Your task to perform on an android device: open app "Facebook" (install if not already installed) Image 0: 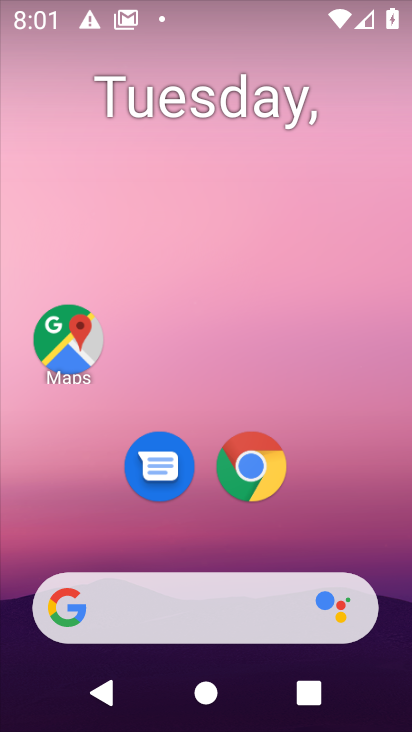
Step 0: drag from (180, 505) to (297, 17)
Your task to perform on an android device: open app "Facebook" (install if not already installed) Image 1: 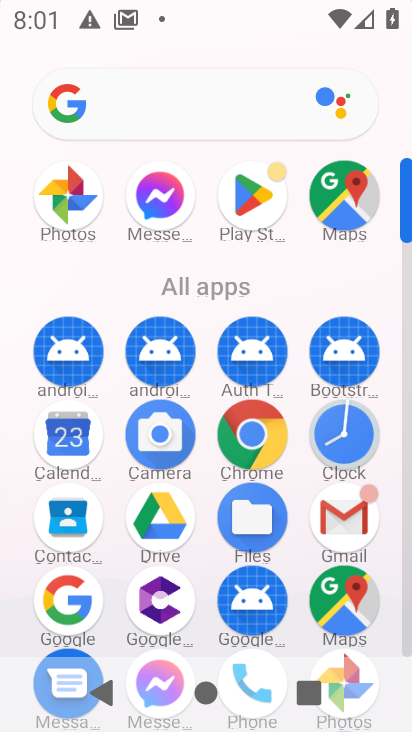
Step 1: click (262, 197)
Your task to perform on an android device: open app "Facebook" (install if not already installed) Image 2: 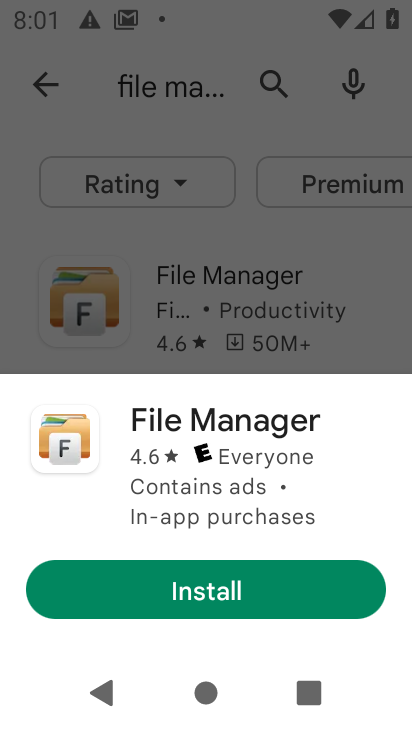
Step 2: click (250, 326)
Your task to perform on an android device: open app "Facebook" (install if not already installed) Image 3: 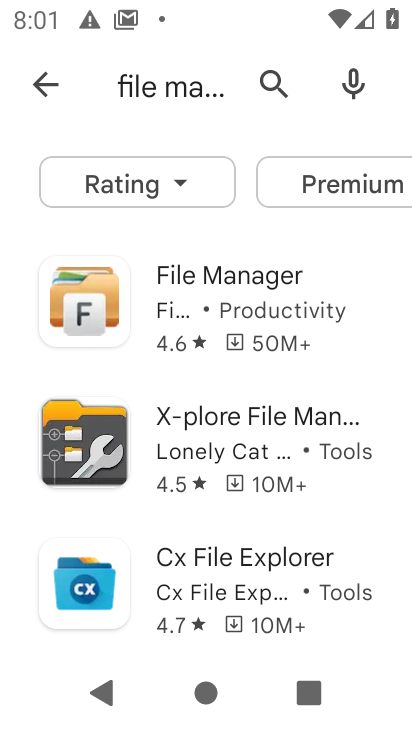
Step 3: click (277, 76)
Your task to perform on an android device: open app "Facebook" (install if not already installed) Image 4: 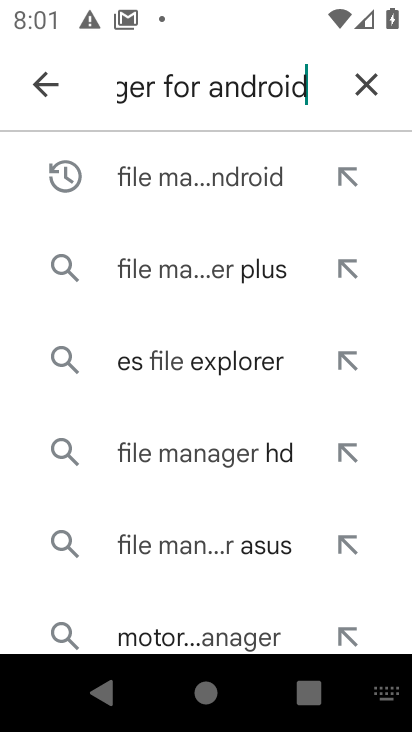
Step 4: click (362, 83)
Your task to perform on an android device: open app "Facebook" (install if not already installed) Image 5: 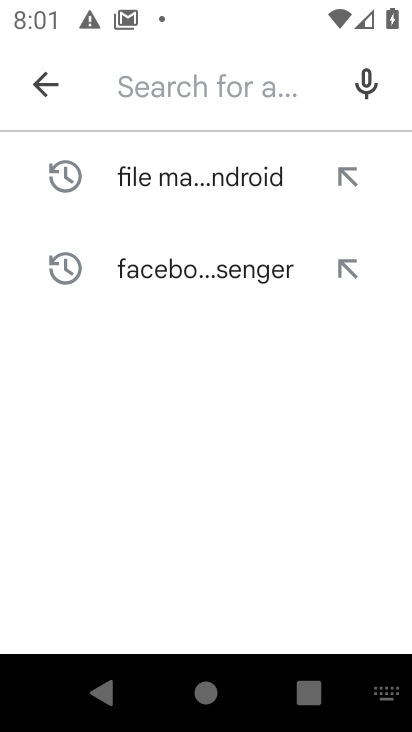
Step 5: click (161, 105)
Your task to perform on an android device: open app "Facebook" (install if not already installed) Image 6: 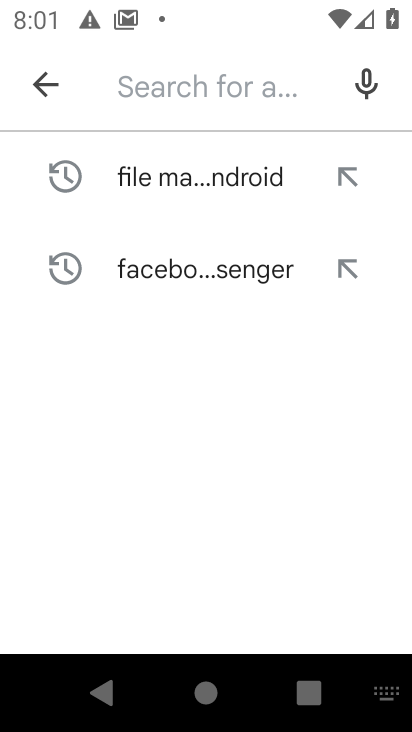
Step 6: type "Facebook"
Your task to perform on an android device: open app "Facebook" (install if not already installed) Image 7: 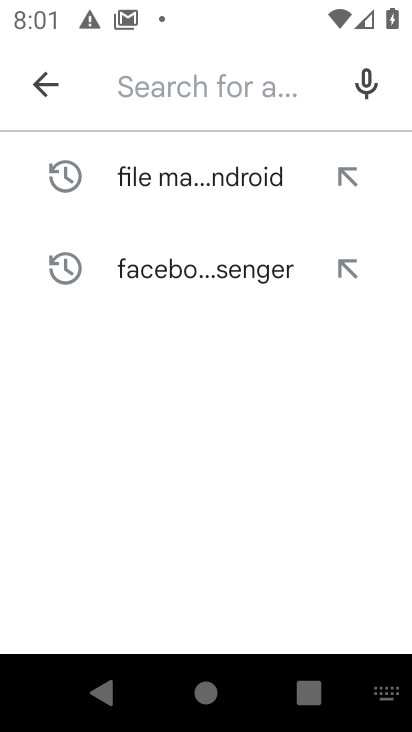
Step 7: click (267, 469)
Your task to perform on an android device: open app "Facebook" (install if not already installed) Image 8: 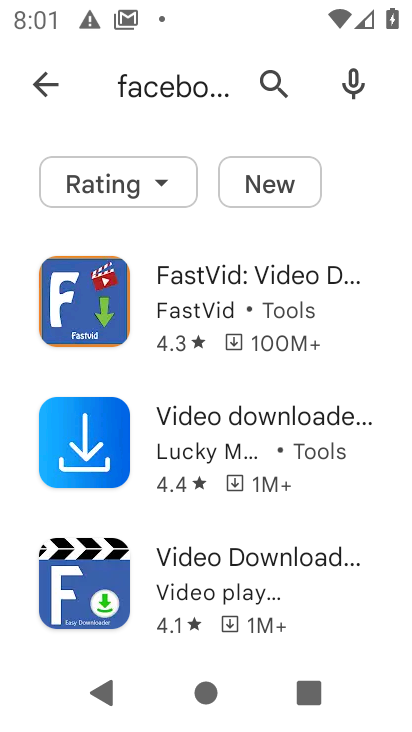
Step 8: task complete